Your task to perform on an android device: turn on sleep mode Image 0: 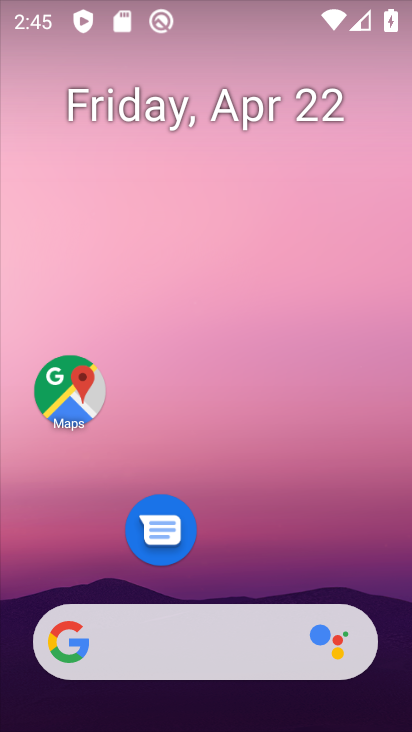
Step 0: drag from (238, 26) to (185, 26)
Your task to perform on an android device: turn on sleep mode Image 1: 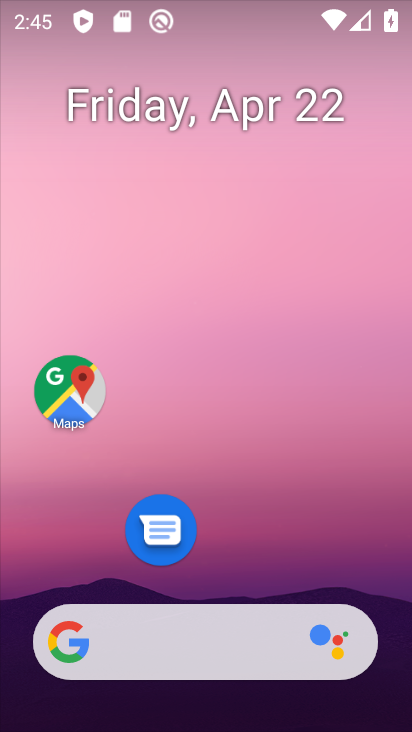
Step 1: drag from (222, 527) to (264, 2)
Your task to perform on an android device: turn on sleep mode Image 2: 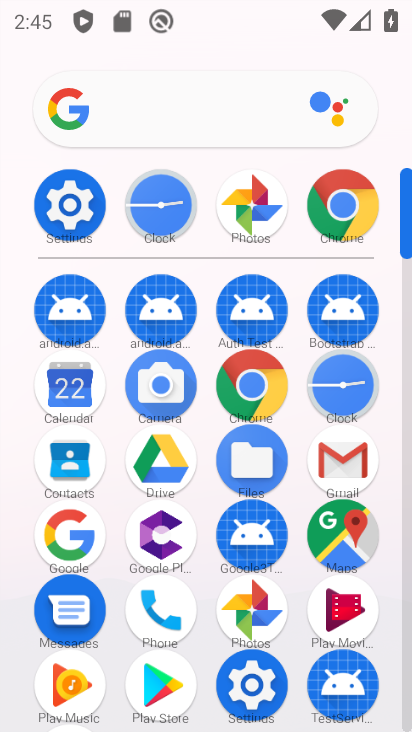
Step 2: click (72, 249)
Your task to perform on an android device: turn on sleep mode Image 3: 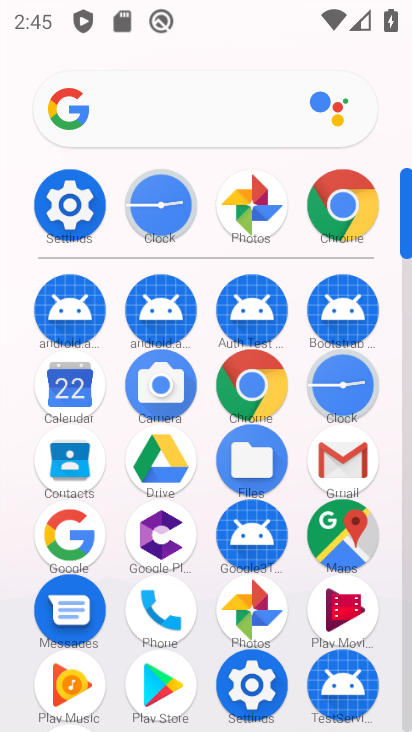
Step 3: click (57, 214)
Your task to perform on an android device: turn on sleep mode Image 4: 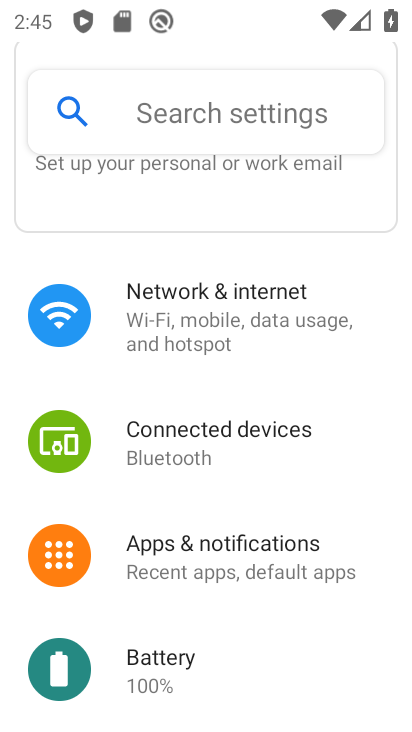
Step 4: drag from (207, 571) to (214, 279)
Your task to perform on an android device: turn on sleep mode Image 5: 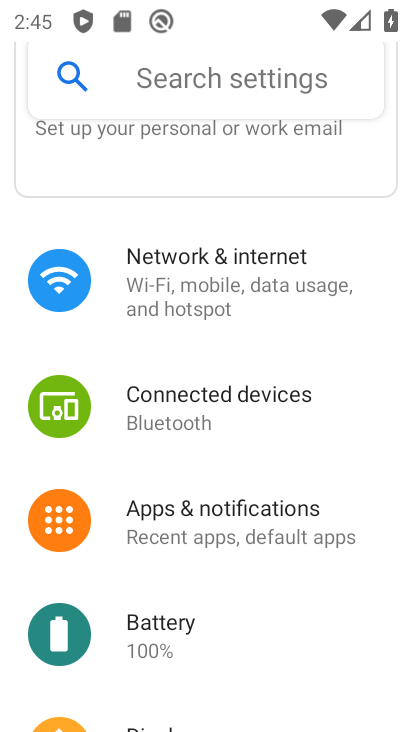
Step 5: drag from (222, 609) to (254, 364)
Your task to perform on an android device: turn on sleep mode Image 6: 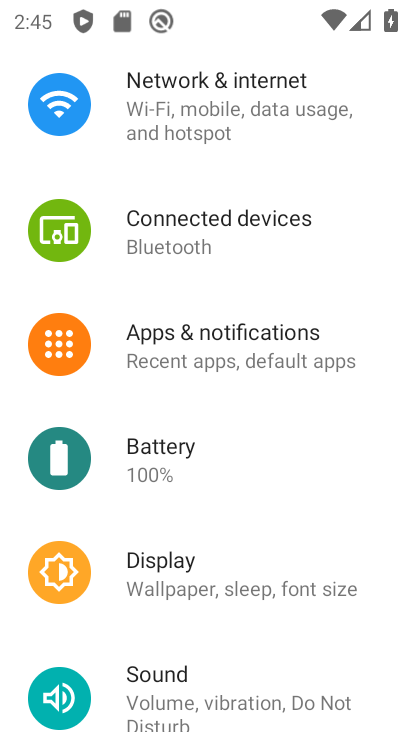
Step 6: click (165, 581)
Your task to perform on an android device: turn on sleep mode Image 7: 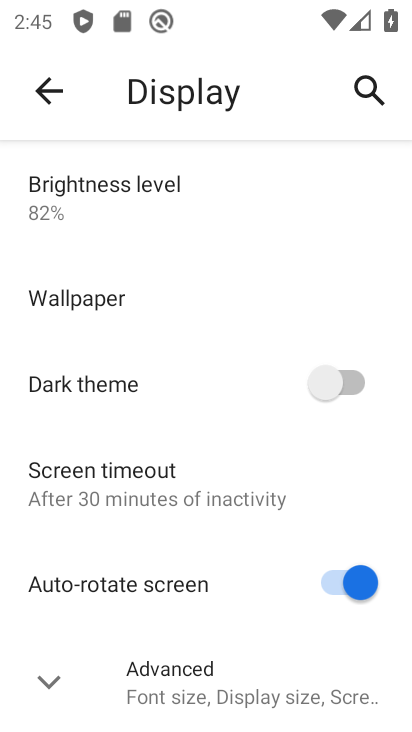
Step 7: task complete